Your task to perform on an android device: turn on showing notifications on the lock screen Image 0: 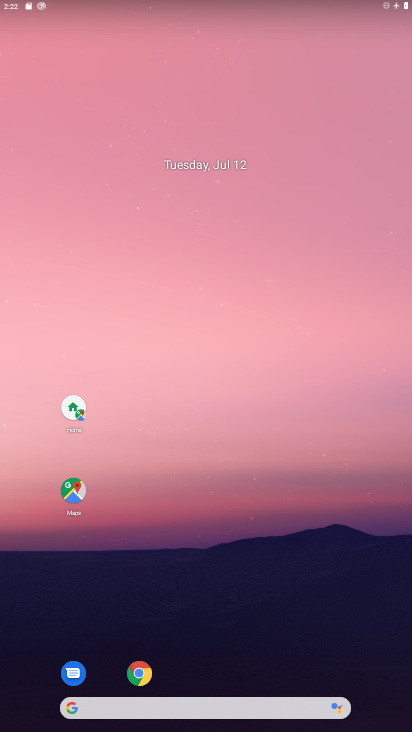
Step 0: drag from (226, 685) to (219, 364)
Your task to perform on an android device: turn on showing notifications on the lock screen Image 1: 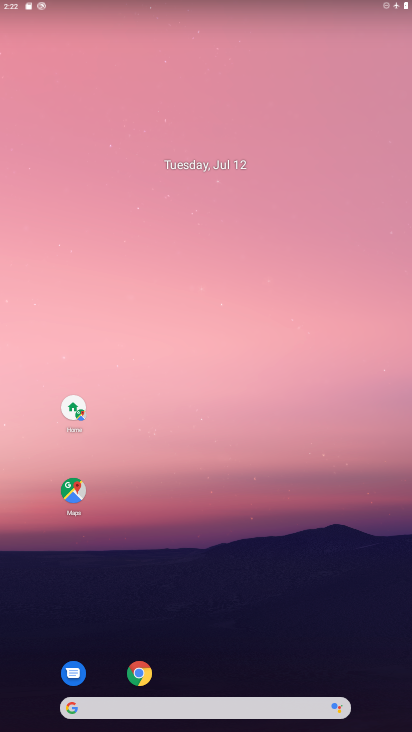
Step 1: drag from (250, 725) to (264, 348)
Your task to perform on an android device: turn on showing notifications on the lock screen Image 2: 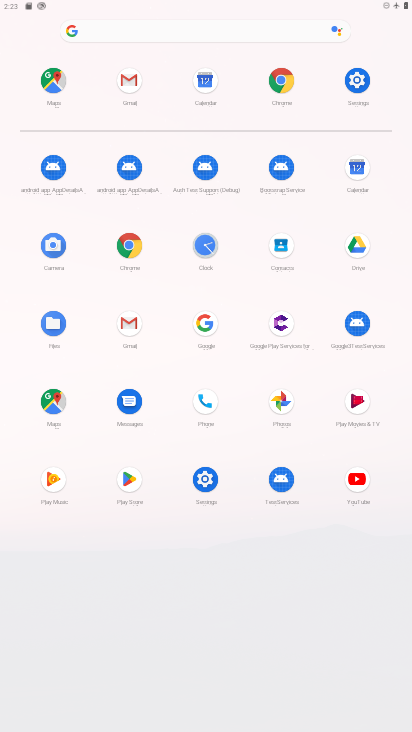
Step 2: click (361, 72)
Your task to perform on an android device: turn on showing notifications on the lock screen Image 3: 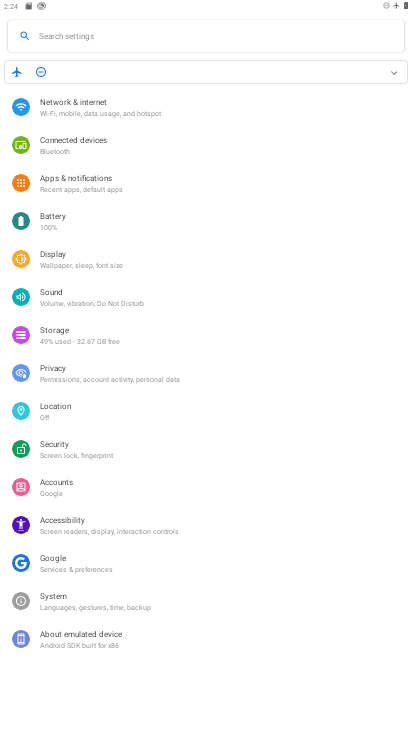
Step 3: click (79, 168)
Your task to perform on an android device: turn on showing notifications on the lock screen Image 4: 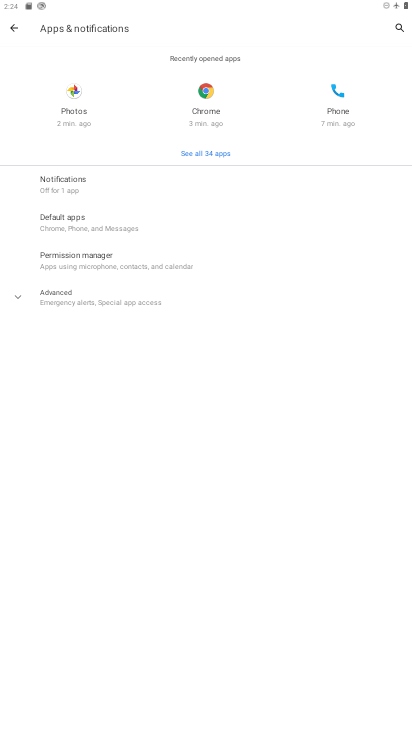
Step 4: click (80, 189)
Your task to perform on an android device: turn on showing notifications on the lock screen Image 5: 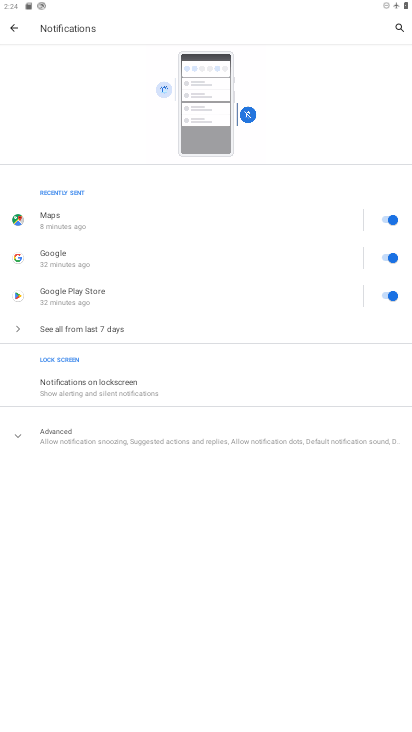
Step 5: click (87, 384)
Your task to perform on an android device: turn on showing notifications on the lock screen Image 6: 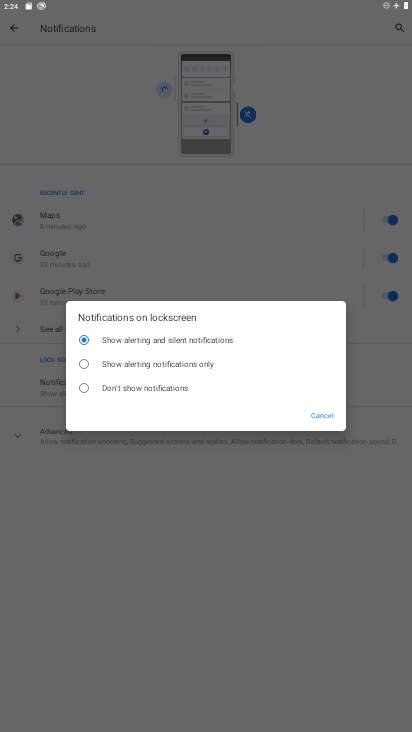
Step 6: task complete